Your task to perform on an android device: Do I have any events this weekend? Image 0: 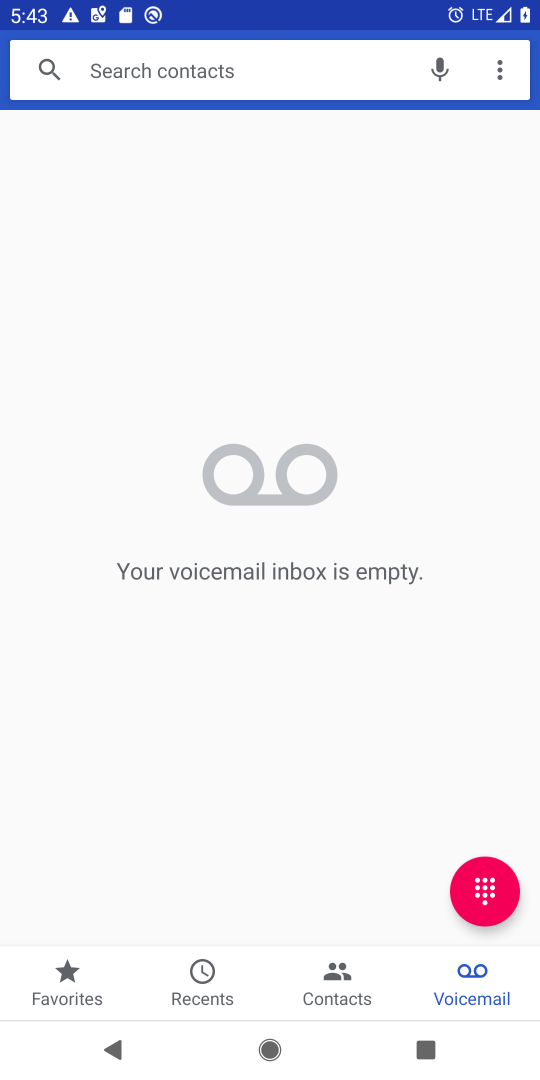
Step 0: press back button
Your task to perform on an android device: Do I have any events this weekend? Image 1: 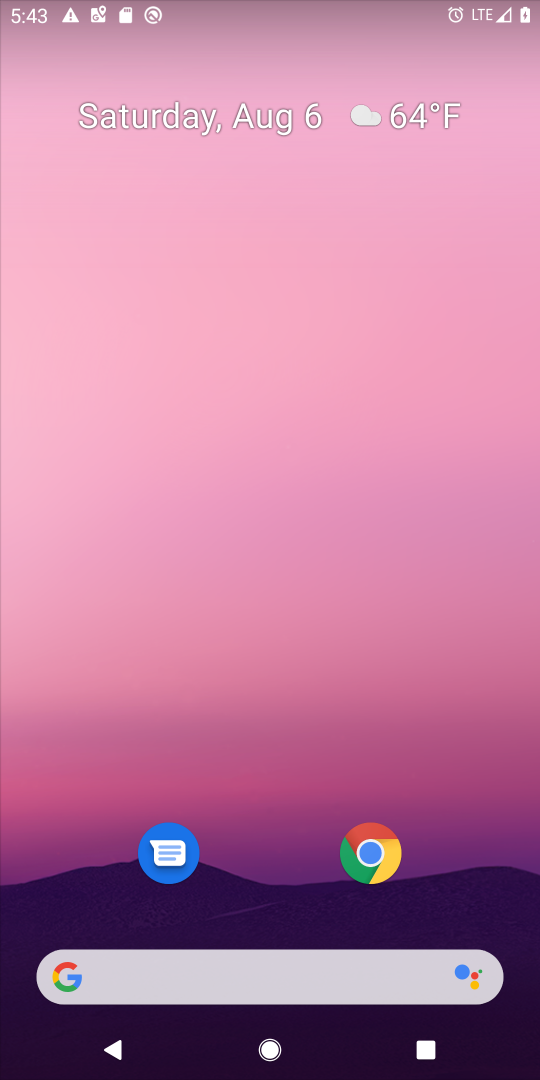
Step 1: drag from (286, 950) to (347, 249)
Your task to perform on an android device: Do I have any events this weekend? Image 2: 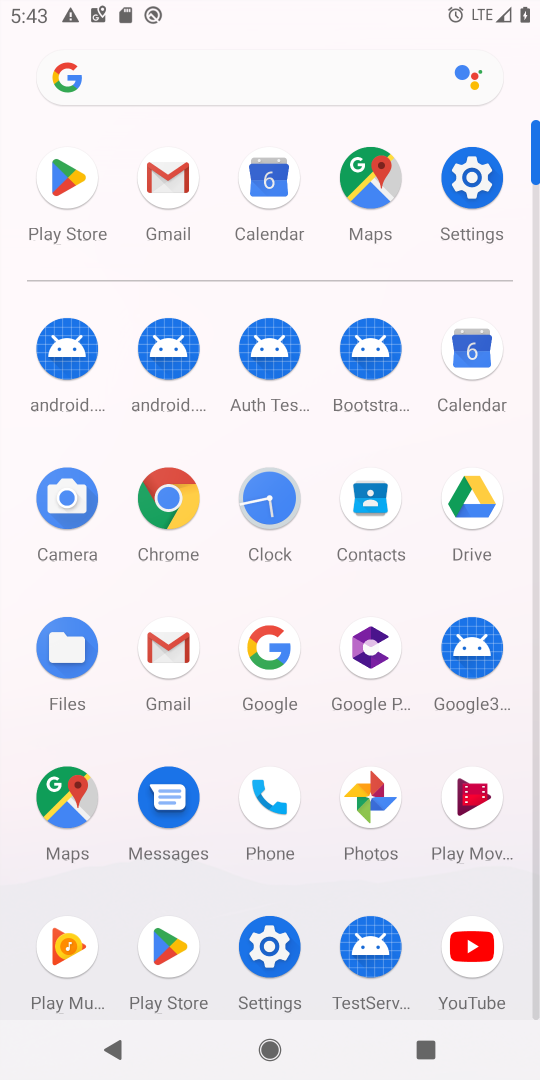
Step 2: click (467, 346)
Your task to perform on an android device: Do I have any events this weekend? Image 3: 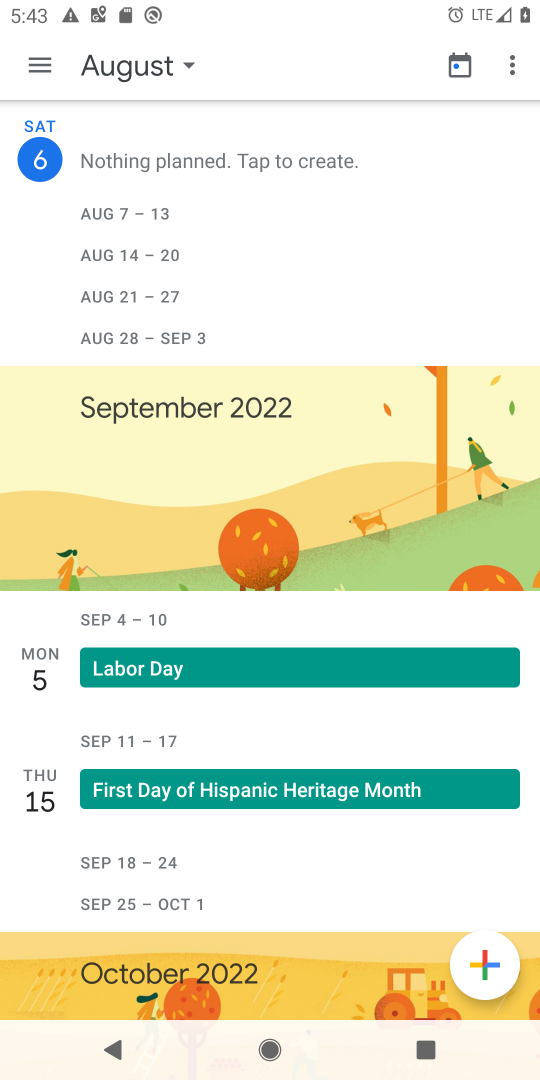
Step 3: click (152, 59)
Your task to perform on an android device: Do I have any events this weekend? Image 4: 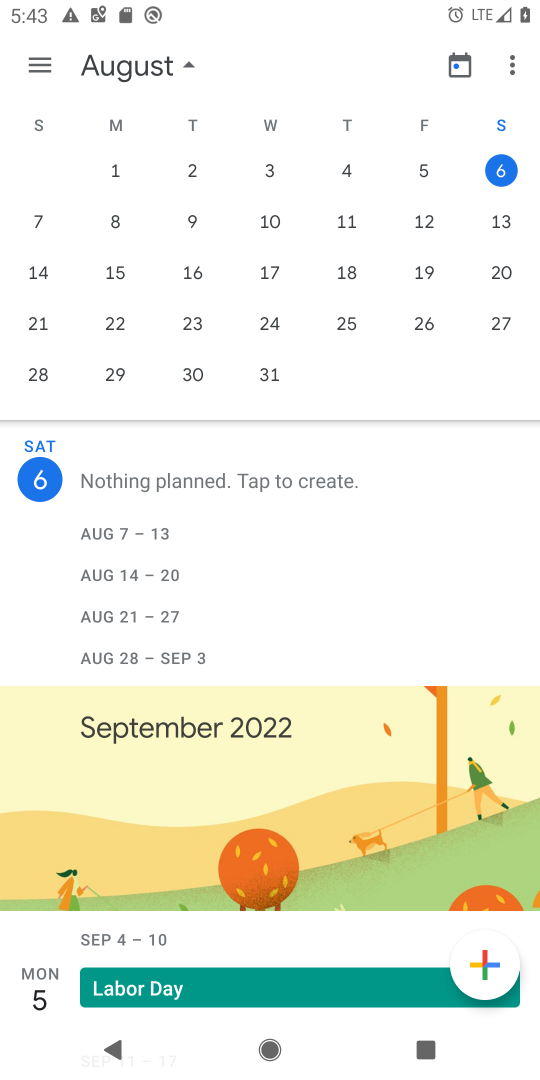
Step 4: task complete